Your task to perform on an android device: see sites visited before in the chrome app Image 0: 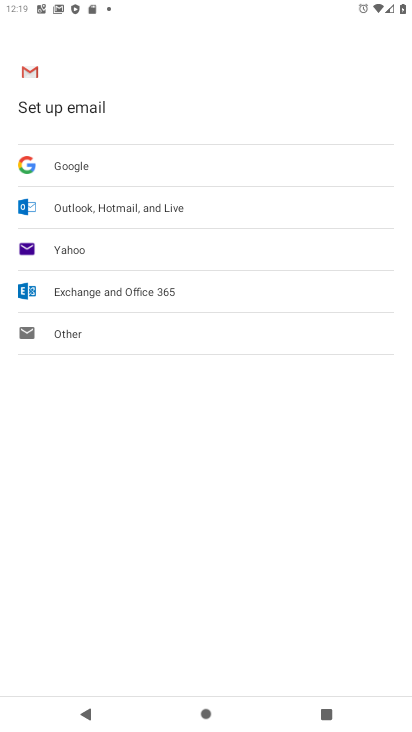
Step 0: press home button
Your task to perform on an android device: see sites visited before in the chrome app Image 1: 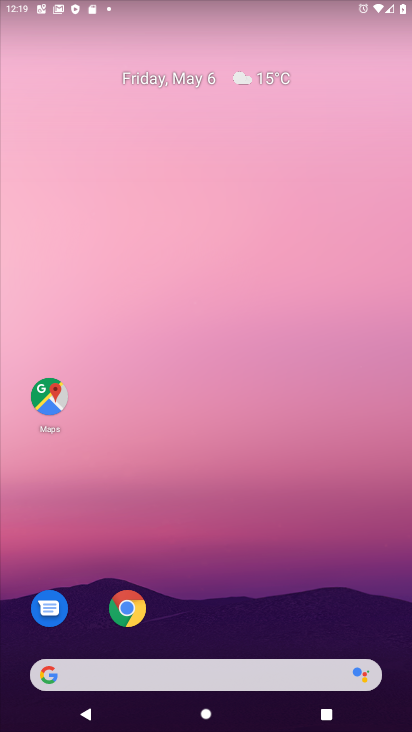
Step 1: click (129, 619)
Your task to perform on an android device: see sites visited before in the chrome app Image 2: 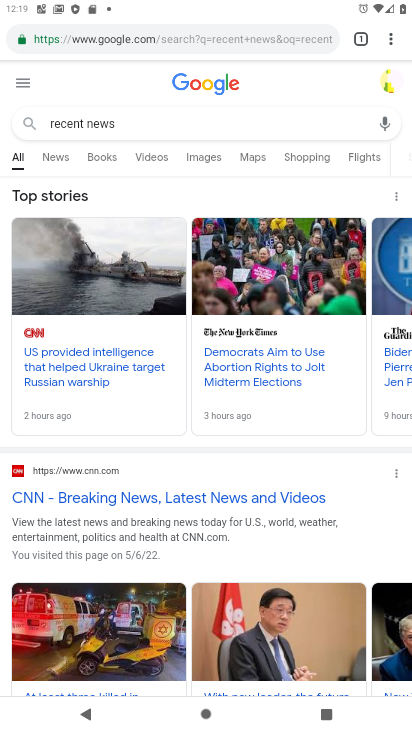
Step 2: drag from (390, 43) to (265, 191)
Your task to perform on an android device: see sites visited before in the chrome app Image 3: 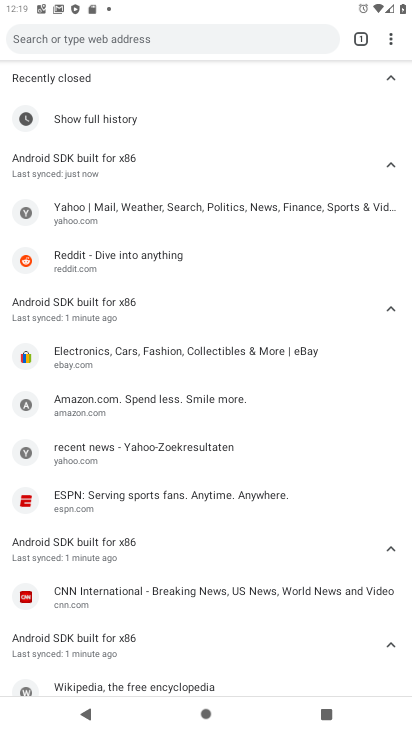
Step 3: click (120, 273)
Your task to perform on an android device: see sites visited before in the chrome app Image 4: 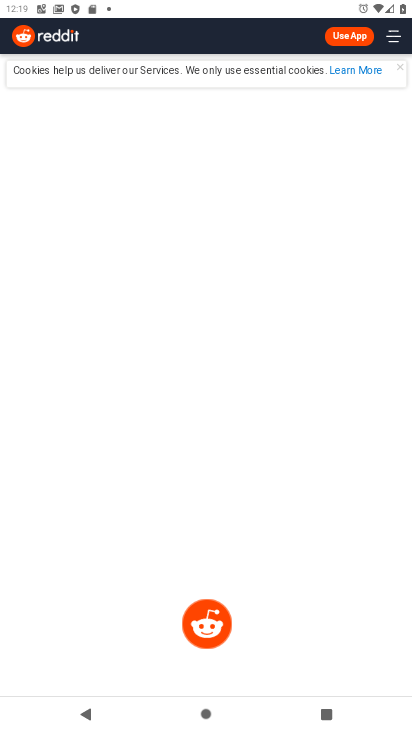
Step 4: task complete